Your task to perform on an android device: Go to privacy settings Image 0: 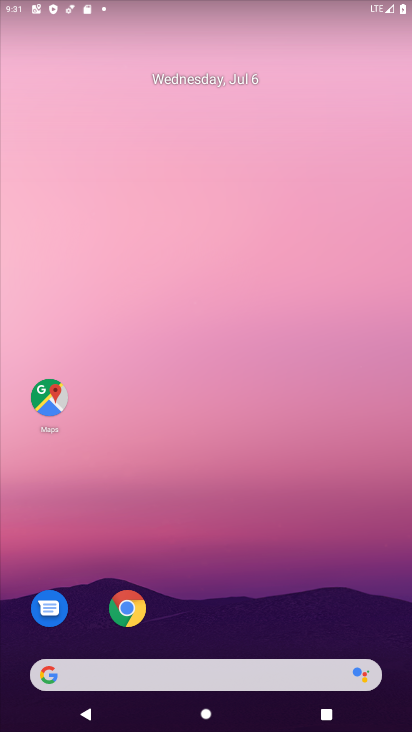
Step 0: drag from (259, 565) to (200, 252)
Your task to perform on an android device: Go to privacy settings Image 1: 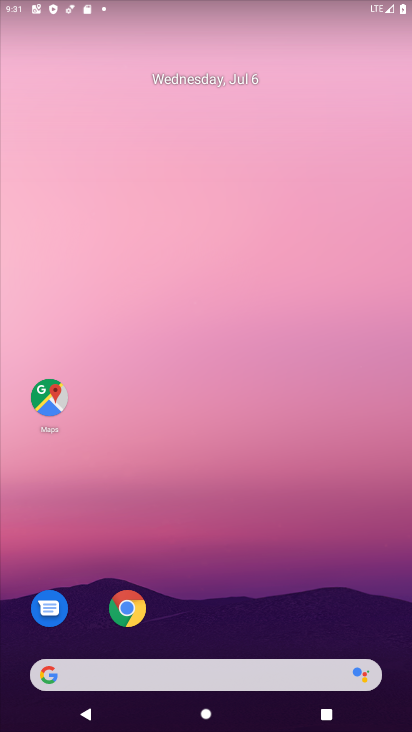
Step 1: drag from (234, 575) to (194, 103)
Your task to perform on an android device: Go to privacy settings Image 2: 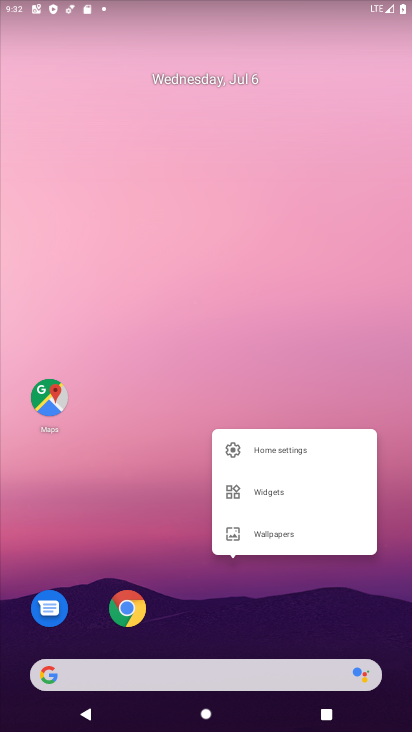
Step 2: click (176, 302)
Your task to perform on an android device: Go to privacy settings Image 3: 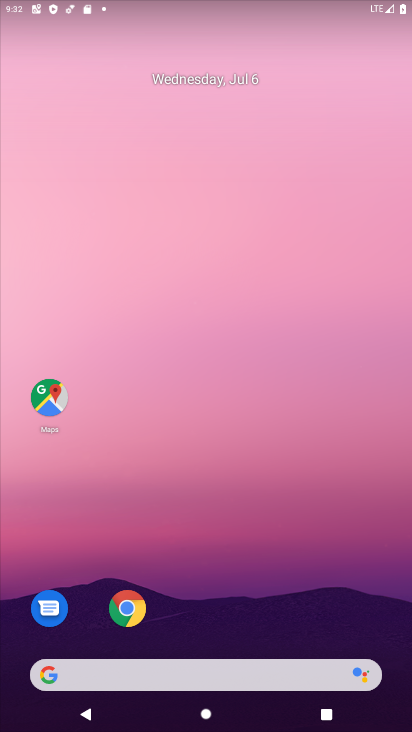
Step 3: drag from (224, 585) to (172, 213)
Your task to perform on an android device: Go to privacy settings Image 4: 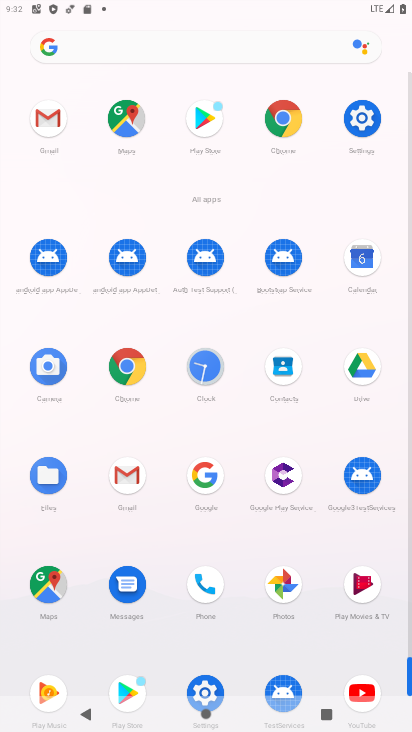
Step 4: click (361, 116)
Your task to perform on an android device: Go to privacy settings Image 5: 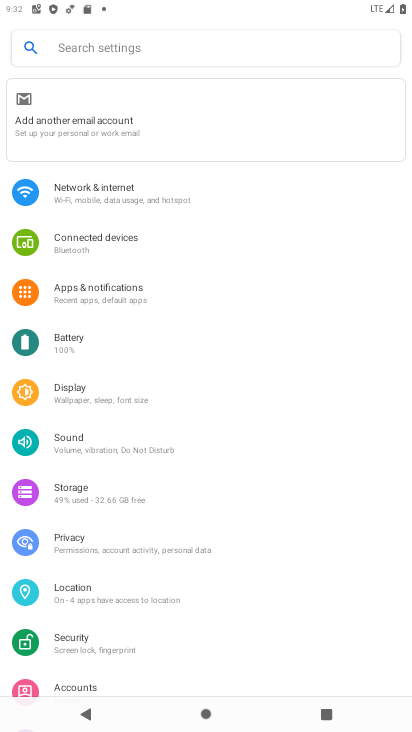
Step 5: click (67, 534)
Your task to perform on an android device: Go to privacy settings Image 6: 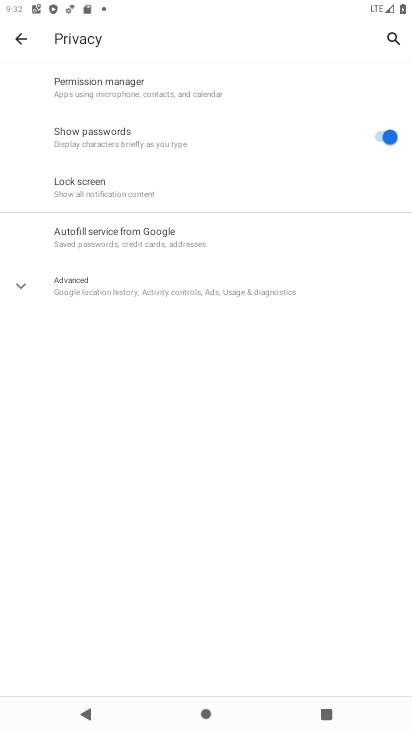
Step 6: task complete